Your task to perform on an android device: Find coffee shops on Maps Image 0: 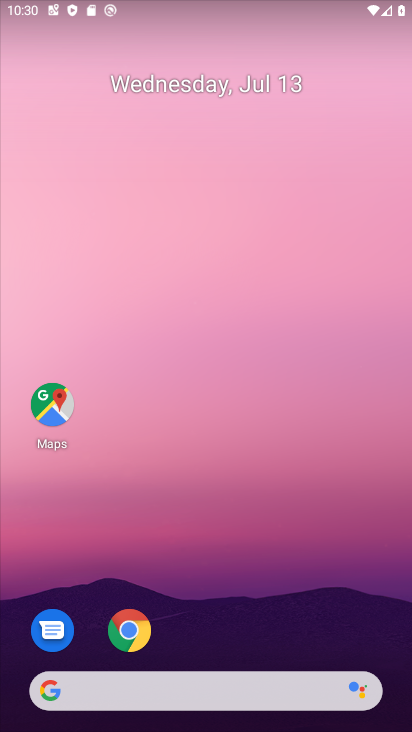
Step 0: drag from (299, 629) to (349, 105)
Your task to perform on an android device: Find coffee shops on Maps Image 1: 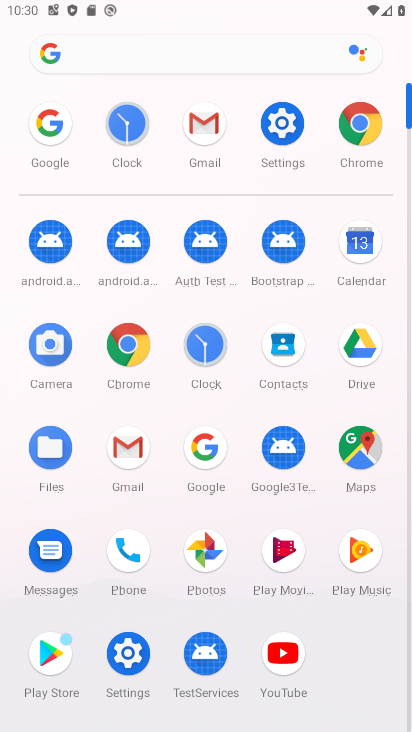
Step 1: click (372, 439)
Your task to perform on an android device: Find coffee shops on Maps Image 2: 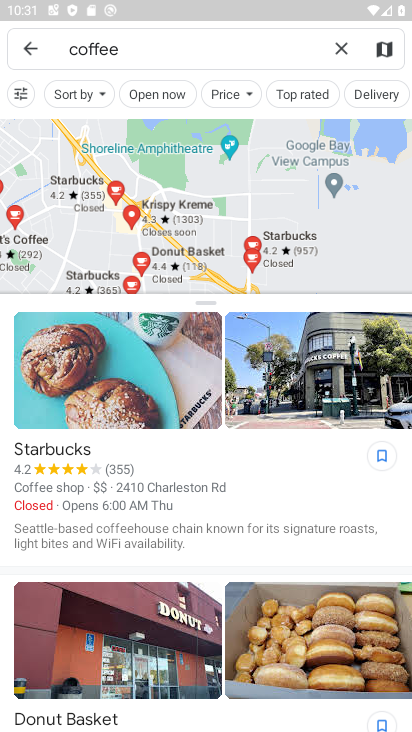
Step 2: task complete